Your task to perform on an android device: add a contact Image 0: 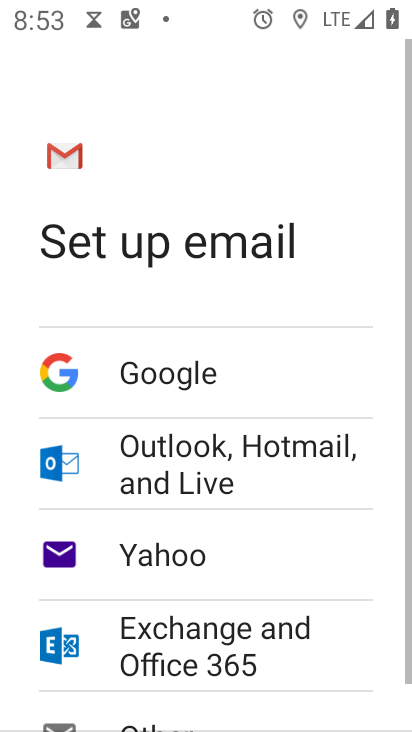
Step 0: press home button
Your task to perform on an android device: add a contact Image 1: 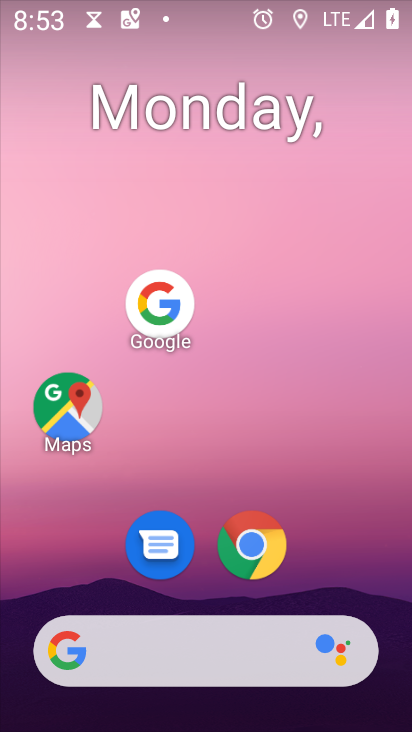
Step 1: drag from (207, 632) to (329, 71)
Your task to perform on an android device: add a contact Image 2: 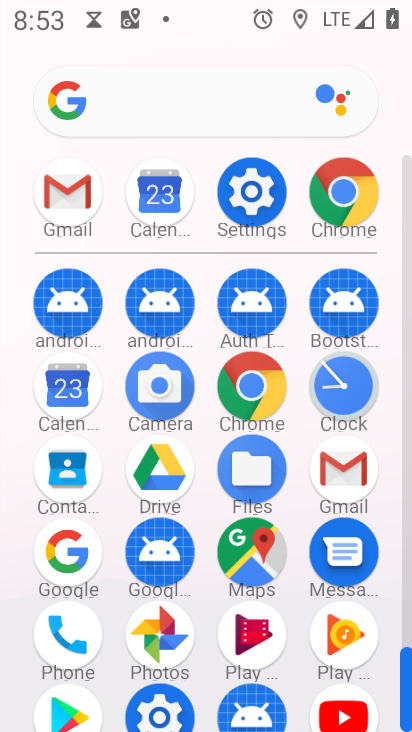
Step 2: click (62, 465)
Your task to perform on an android device: add a contact Image 3: 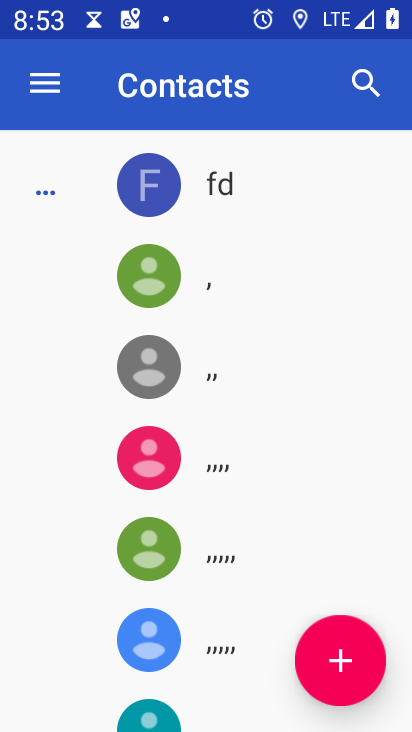
Step 3: click (345, 659)
Your task to perform on an android device: add a contact Image 4: 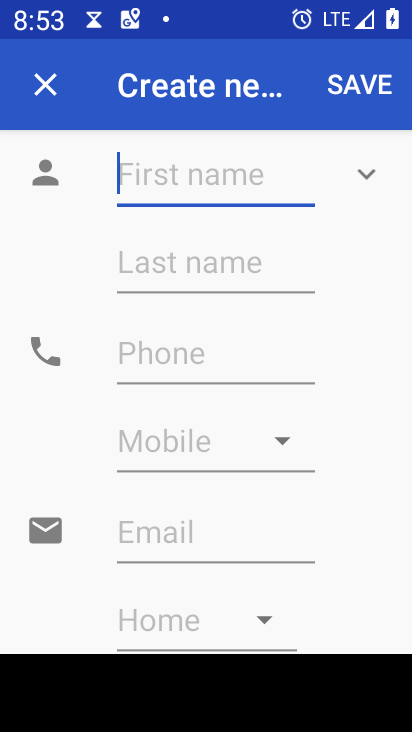
Step 4: type "mjuuuuyg"
Your task to perform on an android device: add a contact Image 5: 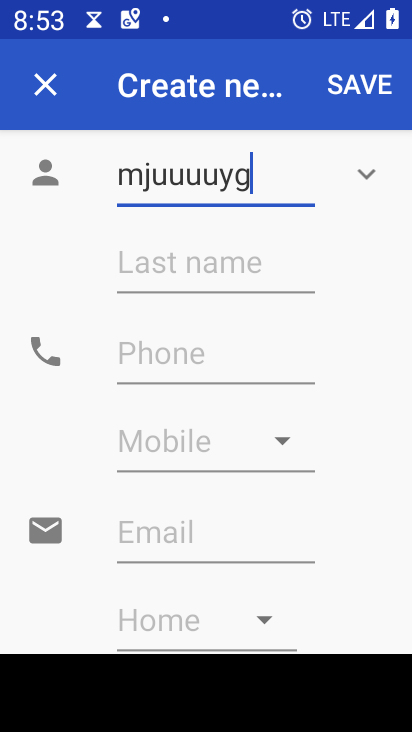
Step 5: click (138, 356)
Your task to perform on an android device: add a contact Image 6: 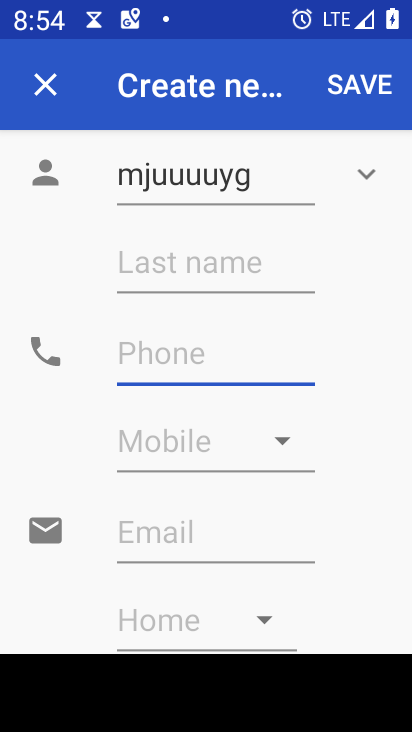
Step 6: type "986655099"
Your task to perform on an android device: add a contact Image 7: 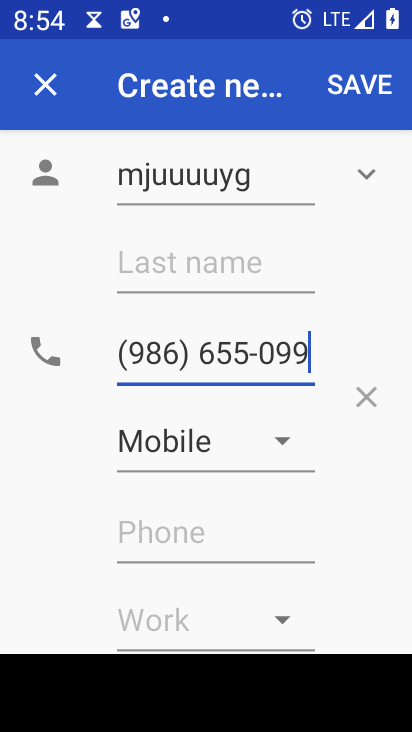
Step 7: click (367, 87)
Your task to perform on an android device: add a contact Image 8: 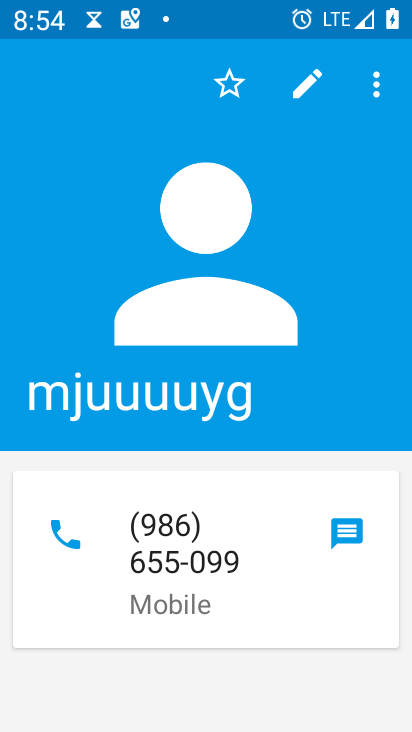
Step 8: task complete